Your task to perform on an android device: Open Reddit.com Image 0: 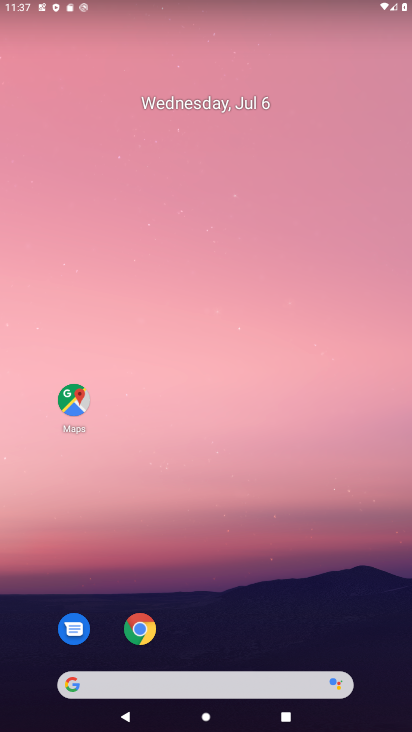
Step 0: click (156, 635)
Your task to perform on an android device: Open Reddit.com Image 1: 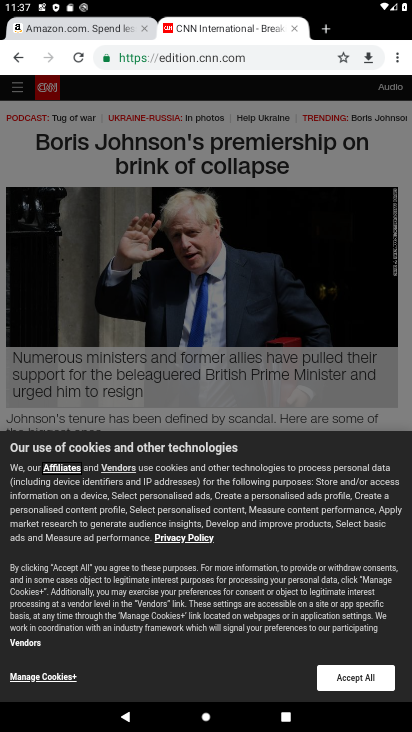
Step 1: click (326, 33)
Your task to perform on an android device: Open Reddit.com Image 2: 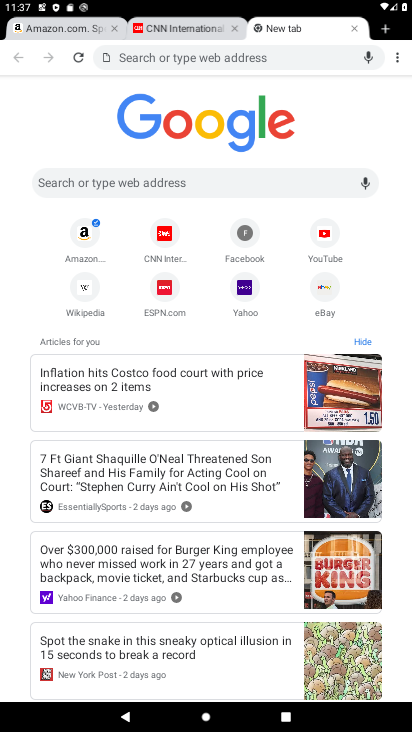
Step 2: click (124, 181)
Your task to perform on an android device: Open Reddit.com Image 3: 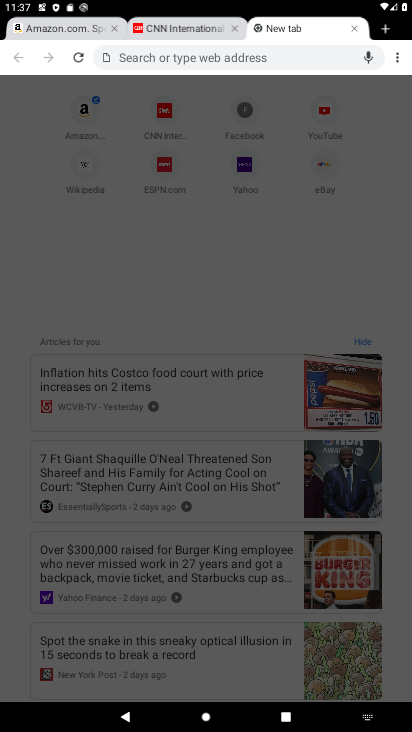
Step 3: type "Reddit.com"
Your task to perform on an android device: Open Reddit.com Image 4: 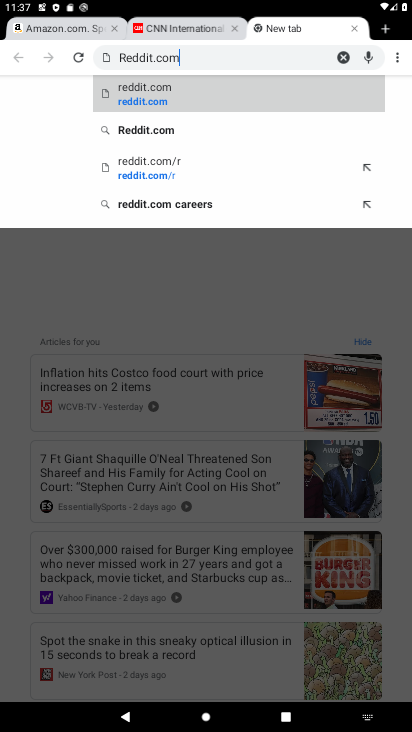
Step 4: click (118, 93)
Your task to perform on an android device: Open Reddit.com Image 5: 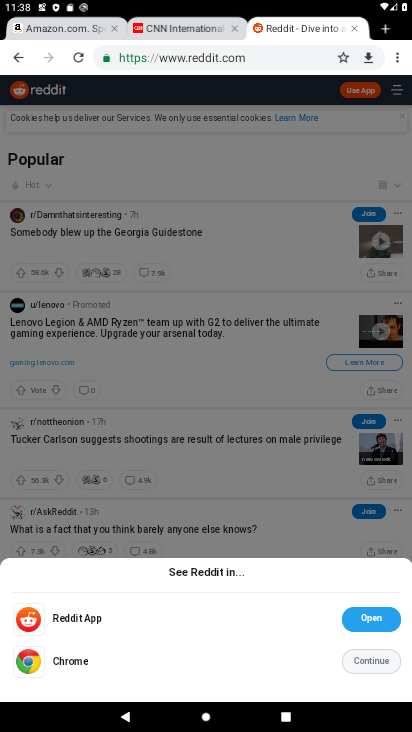
Step 5: task complete